Your task to perform on an android device: Open calendar and show me the second week of next month Image 0: 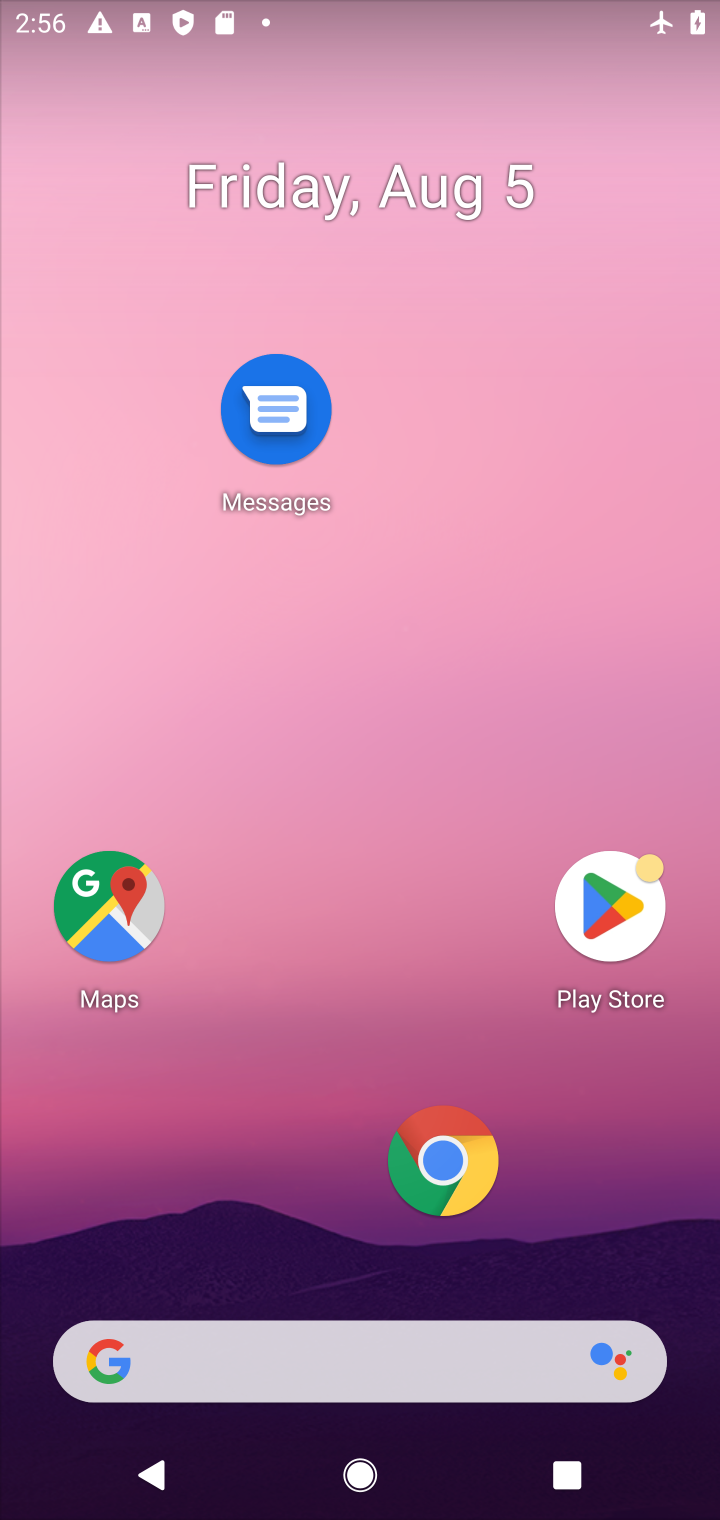
Step 0: press home button
Your task to perform on an android device: Open calendar and show me the second week of next month Image 1: 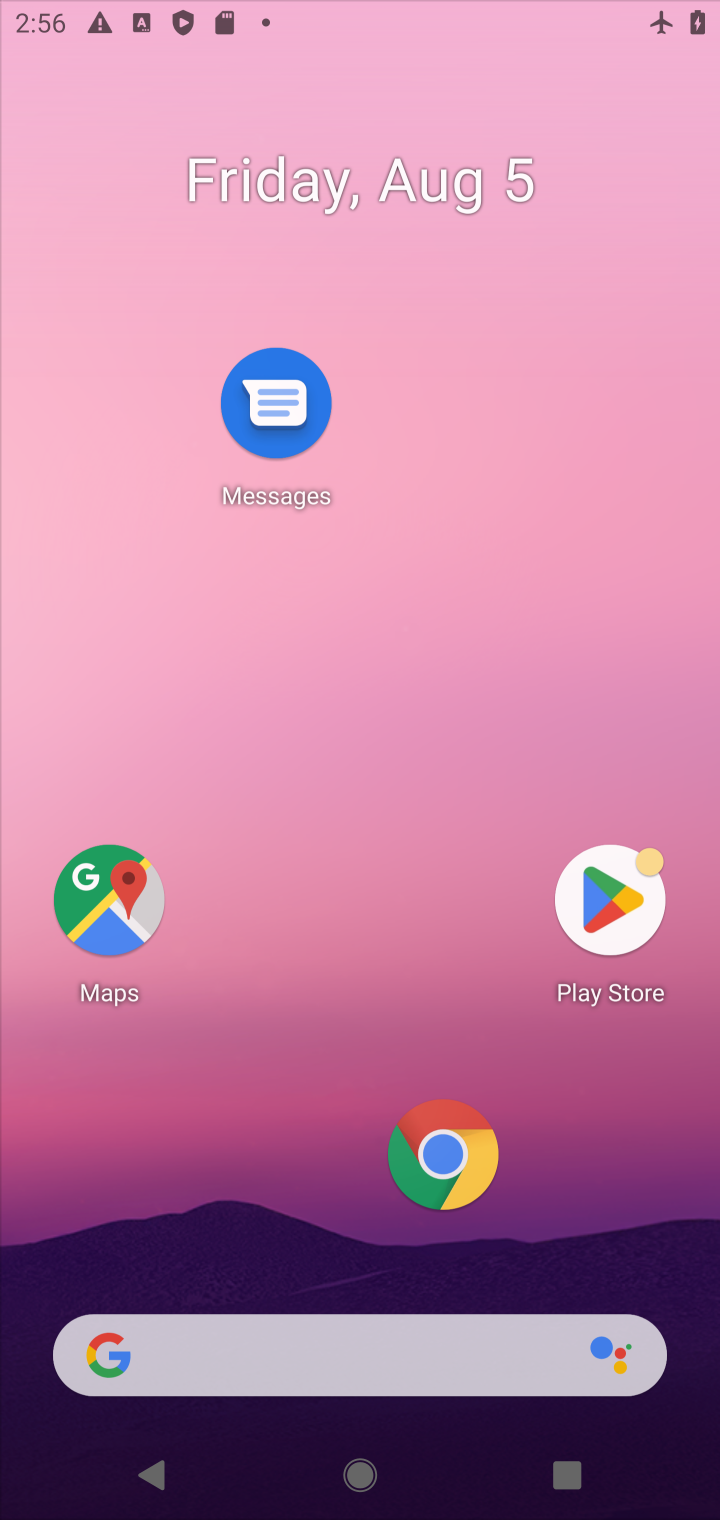
Step 1: drag from (272, 1217) to (378, 420)
Your task to perform on an android device: Open calendar and show me the second week of next month Image 2: 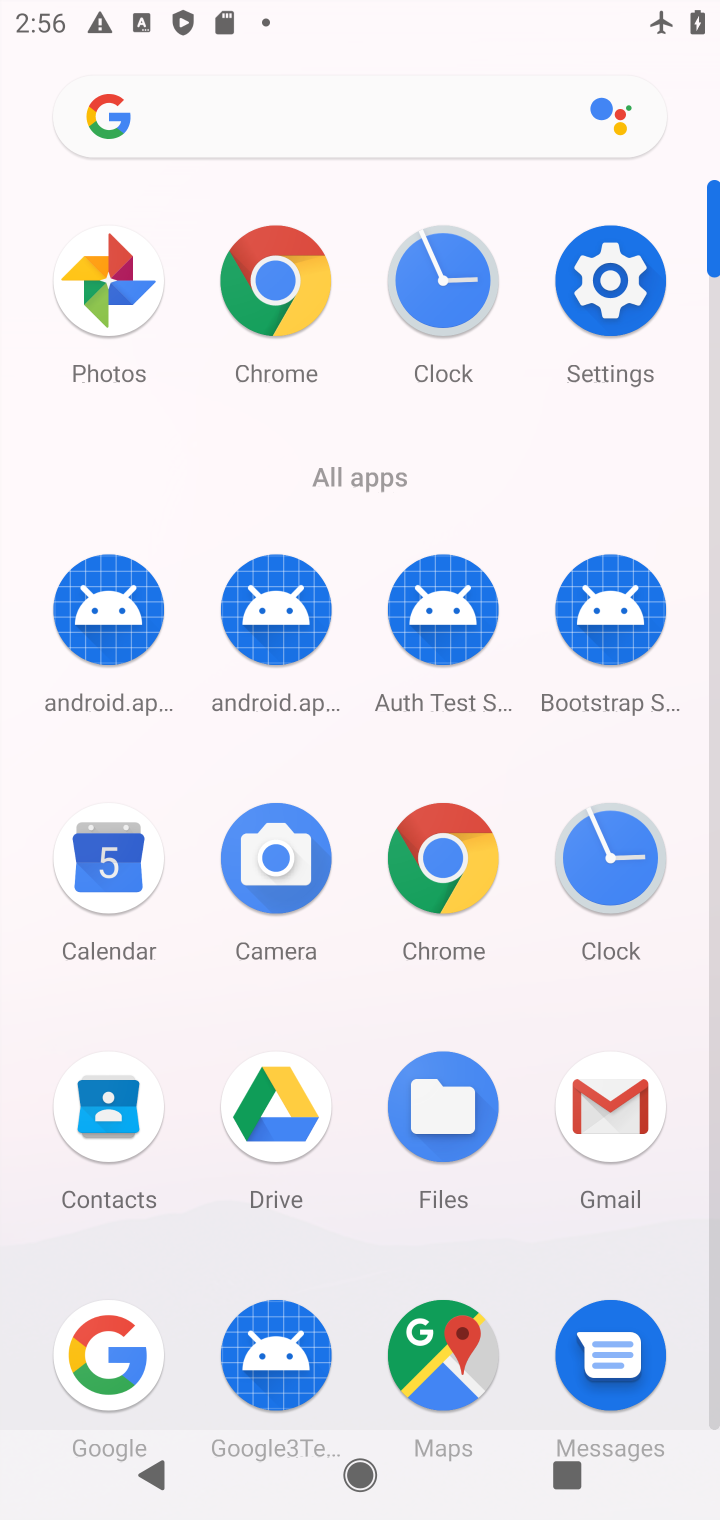
Step 2: click (136, 891)
Your task to perform on an android device: Open calendar and show me the second week of next month Image 3: 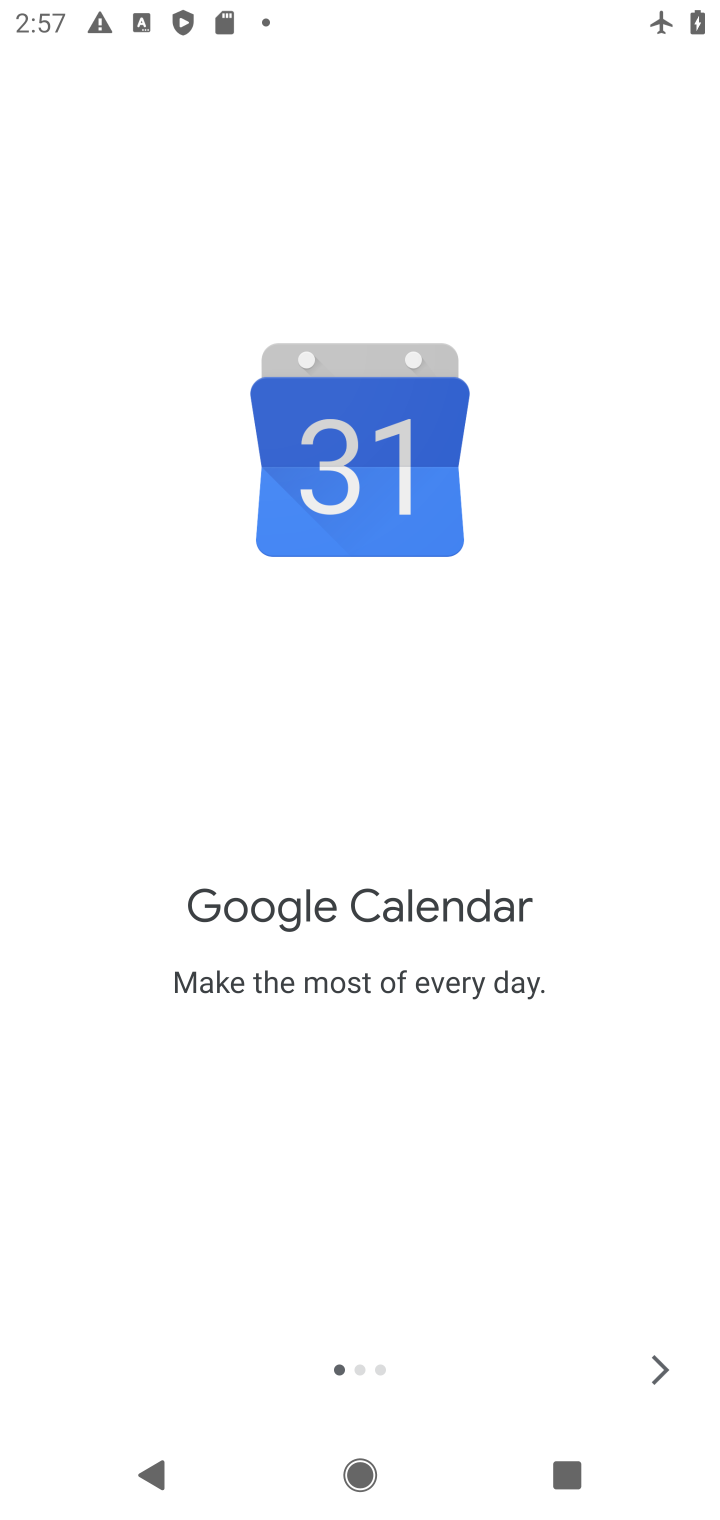
Step 3: click (652, 1370)
Your task to perform on an android device: Open calendar and show me the second week of next month Image 4: 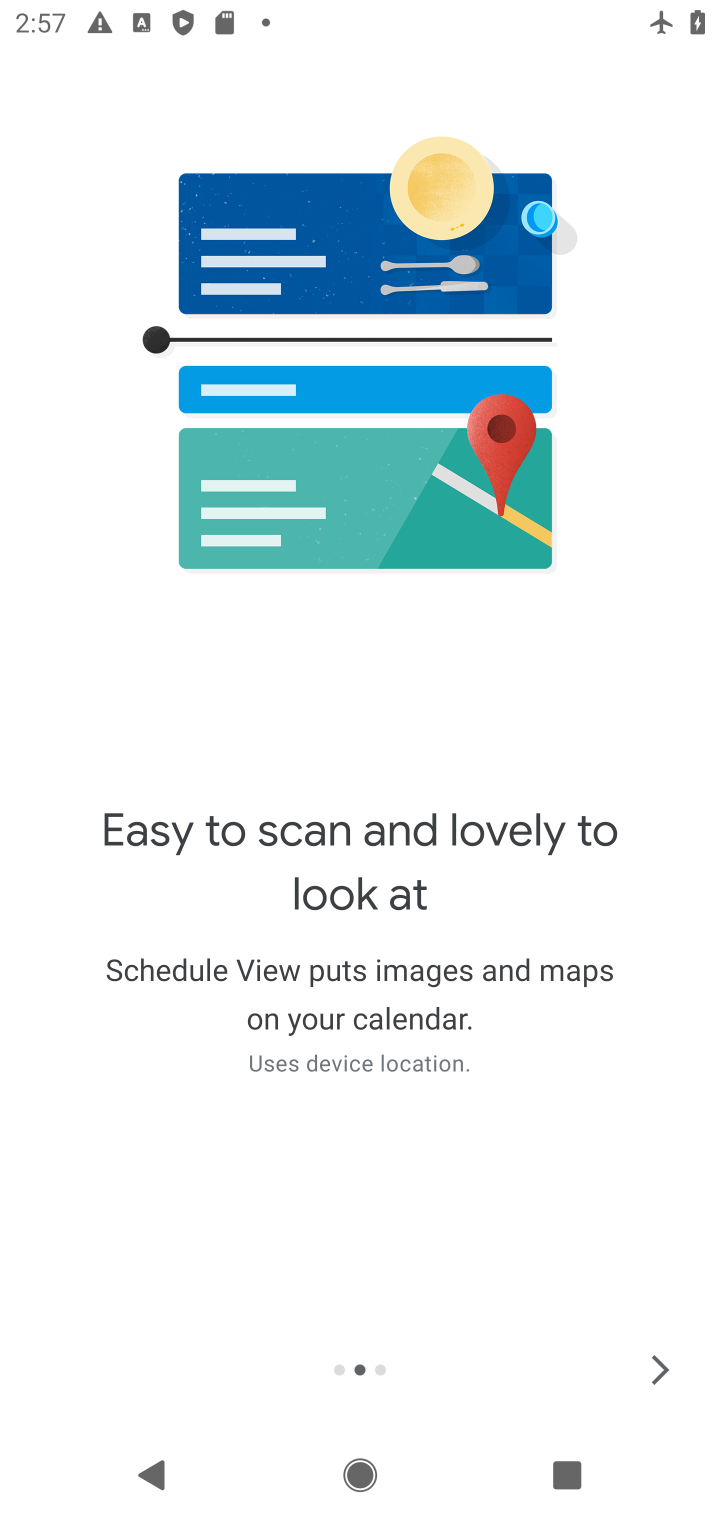
Step 4: click (652, 1370)
Your task to perform on an android device: Open calendar and show me the second week of next month Image 5: 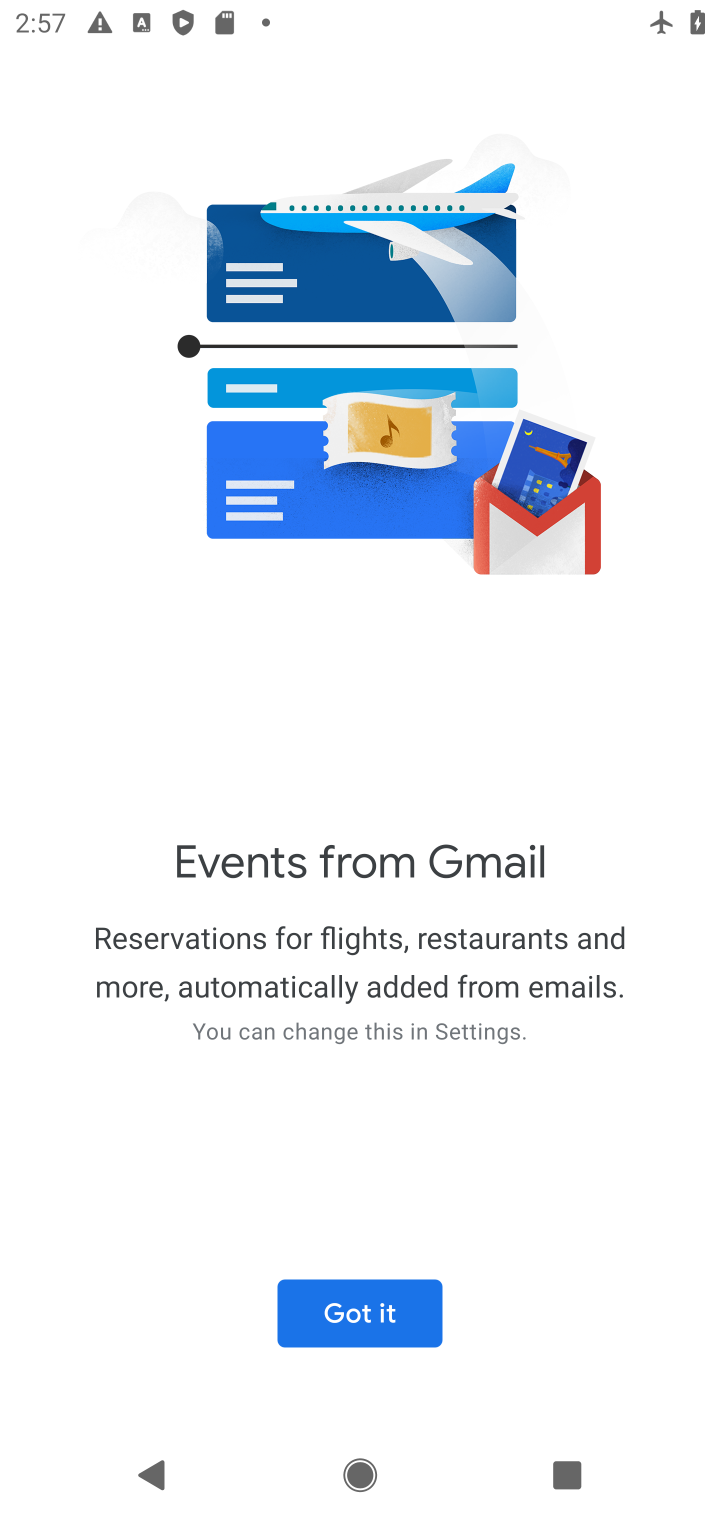
Step 5: click (652, 1370)
Your task to perform on an android device: Open calendar and show me the second week of next month Image 6: 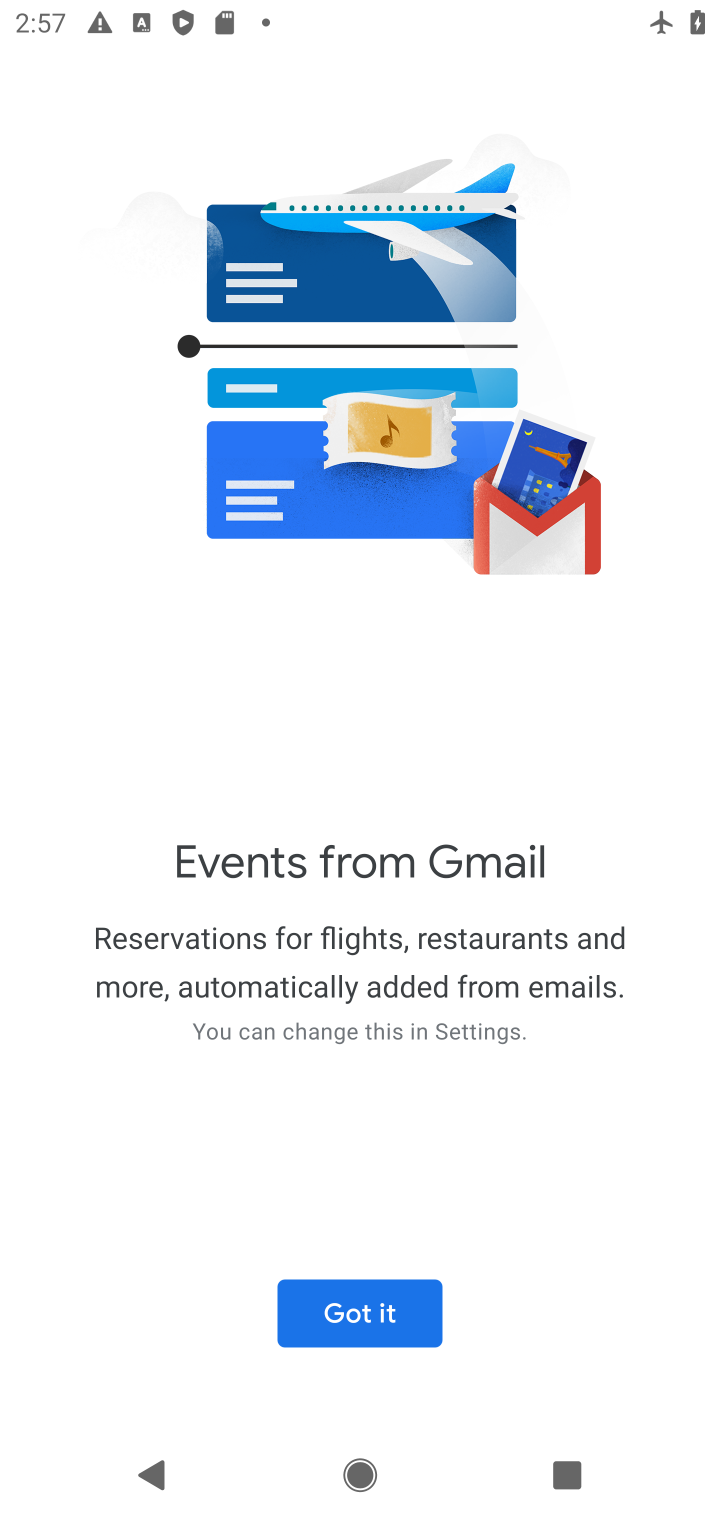
Step 6: click (408, 1327)
Your task to perform on an android device: Open calendar and show me the second week of next month Image 7: 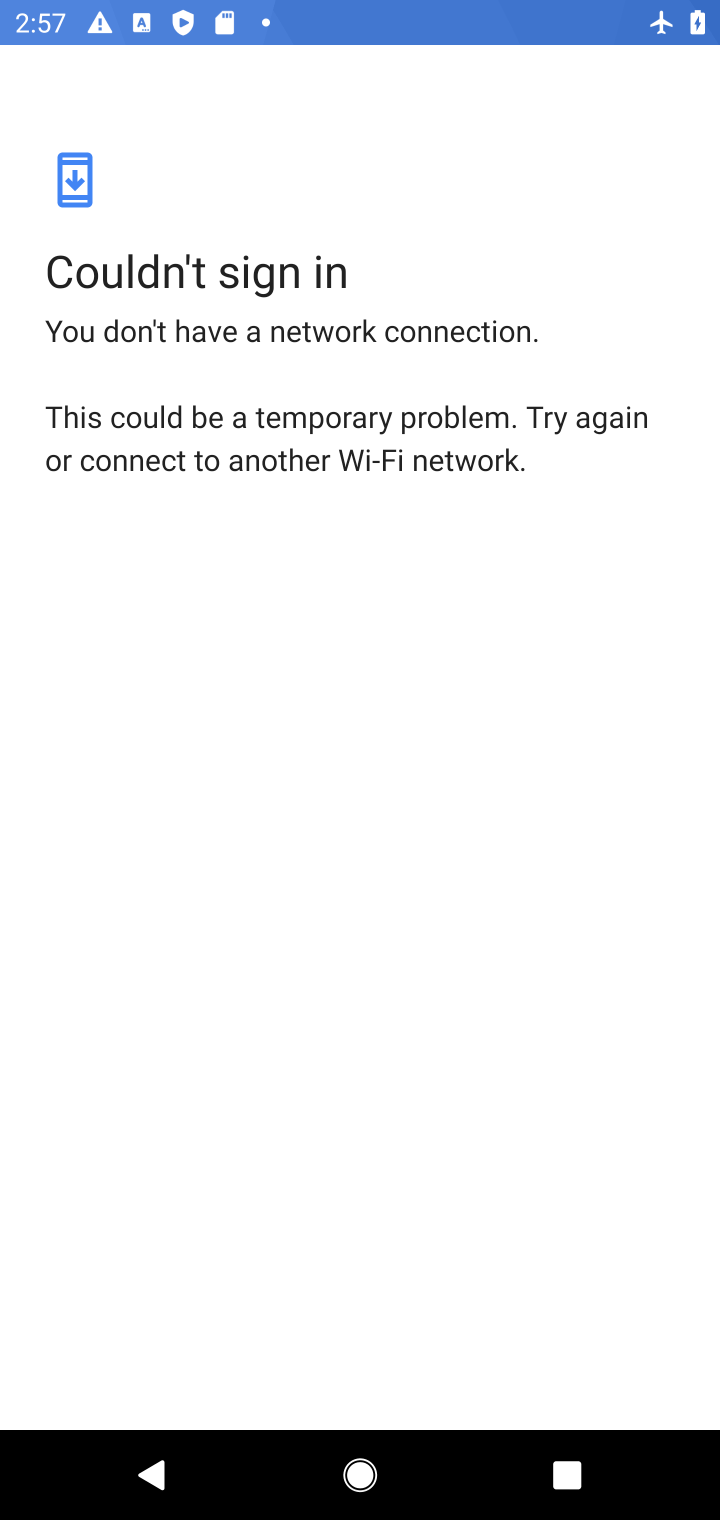
Step 7: press home button
Your task to perform on an android device: Open calendar and show me the second week of next month Image 8: 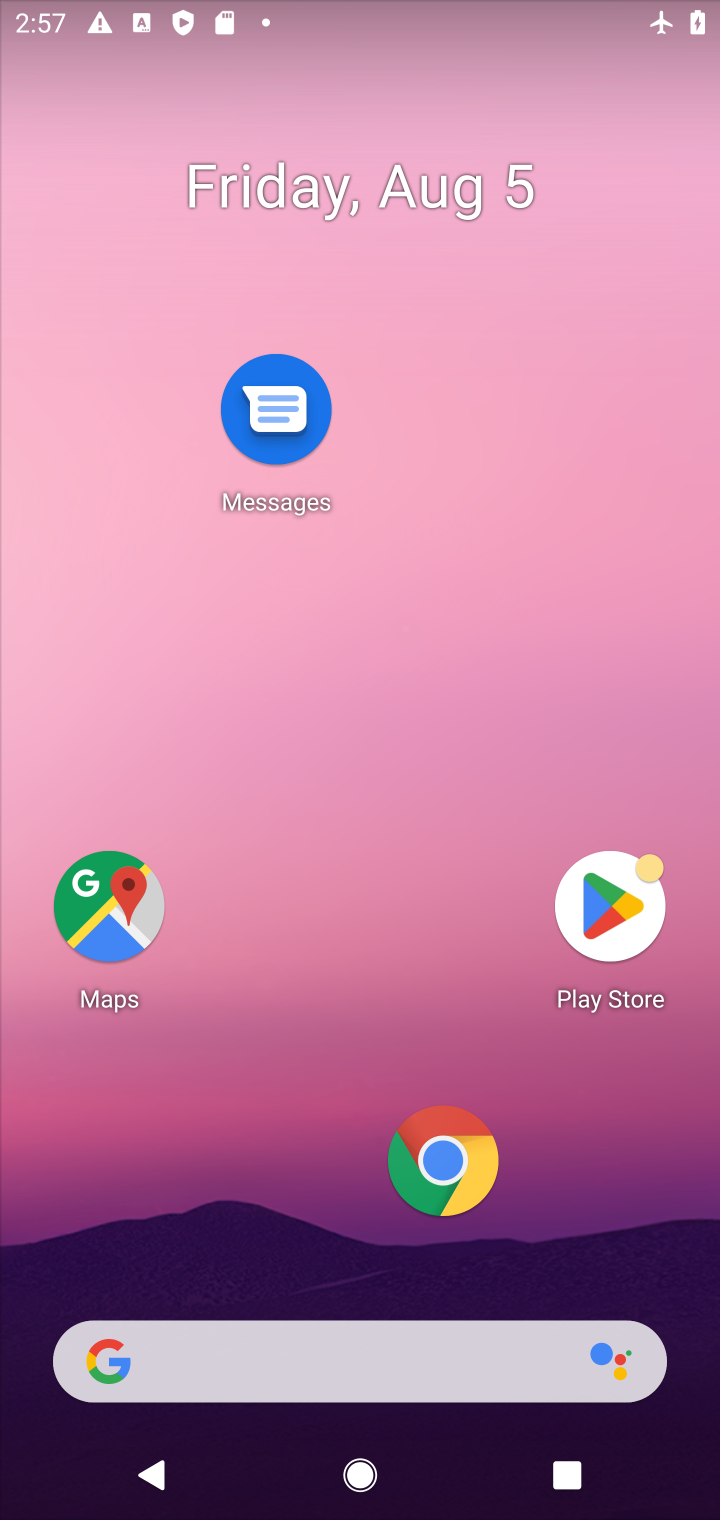
Step 8: drag from (270, 912) to (310, 253)
Your task to perform on an android device: Open calendar and show me the second week of next month Image 9: 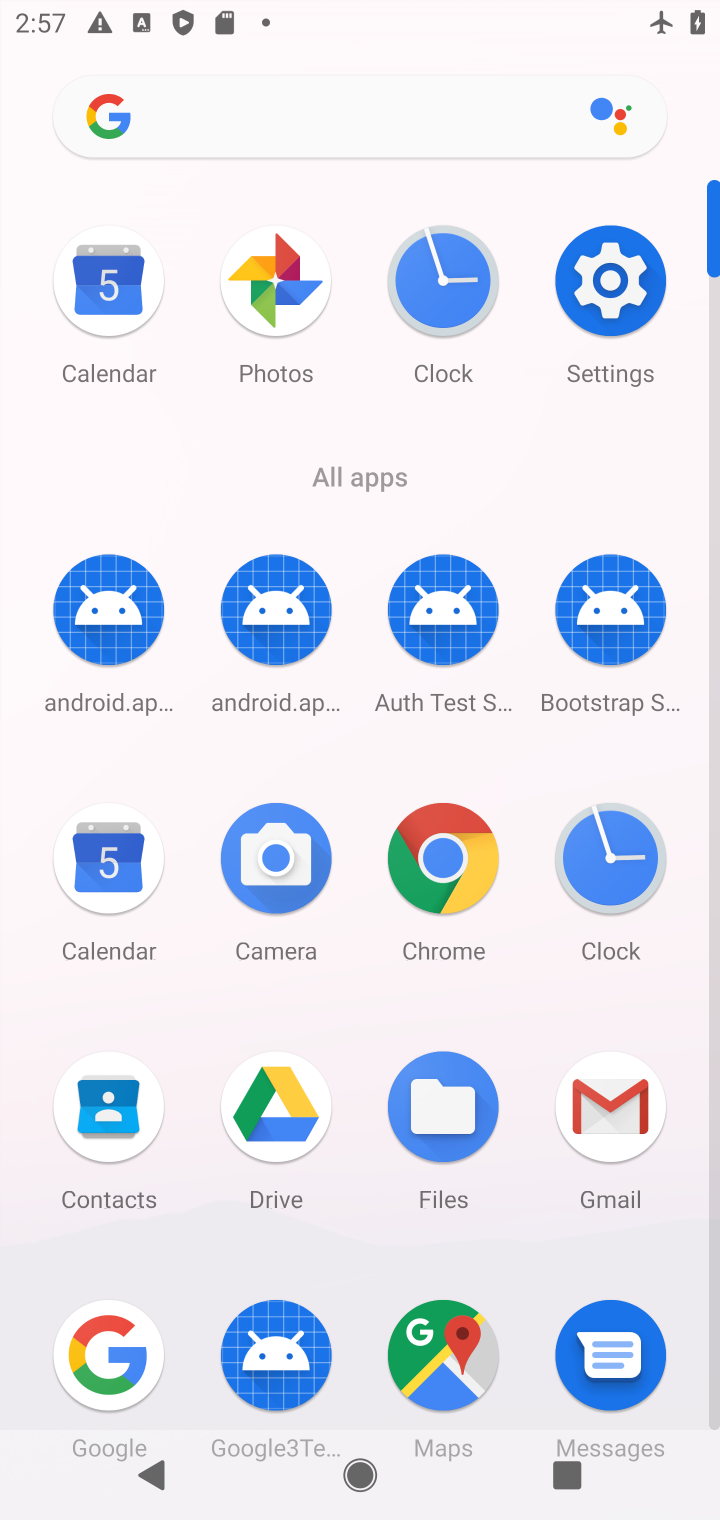
Step 9: click (146, 856)
Your task to perform on an android device: Open calendar and show me the second week of next month Image 10: 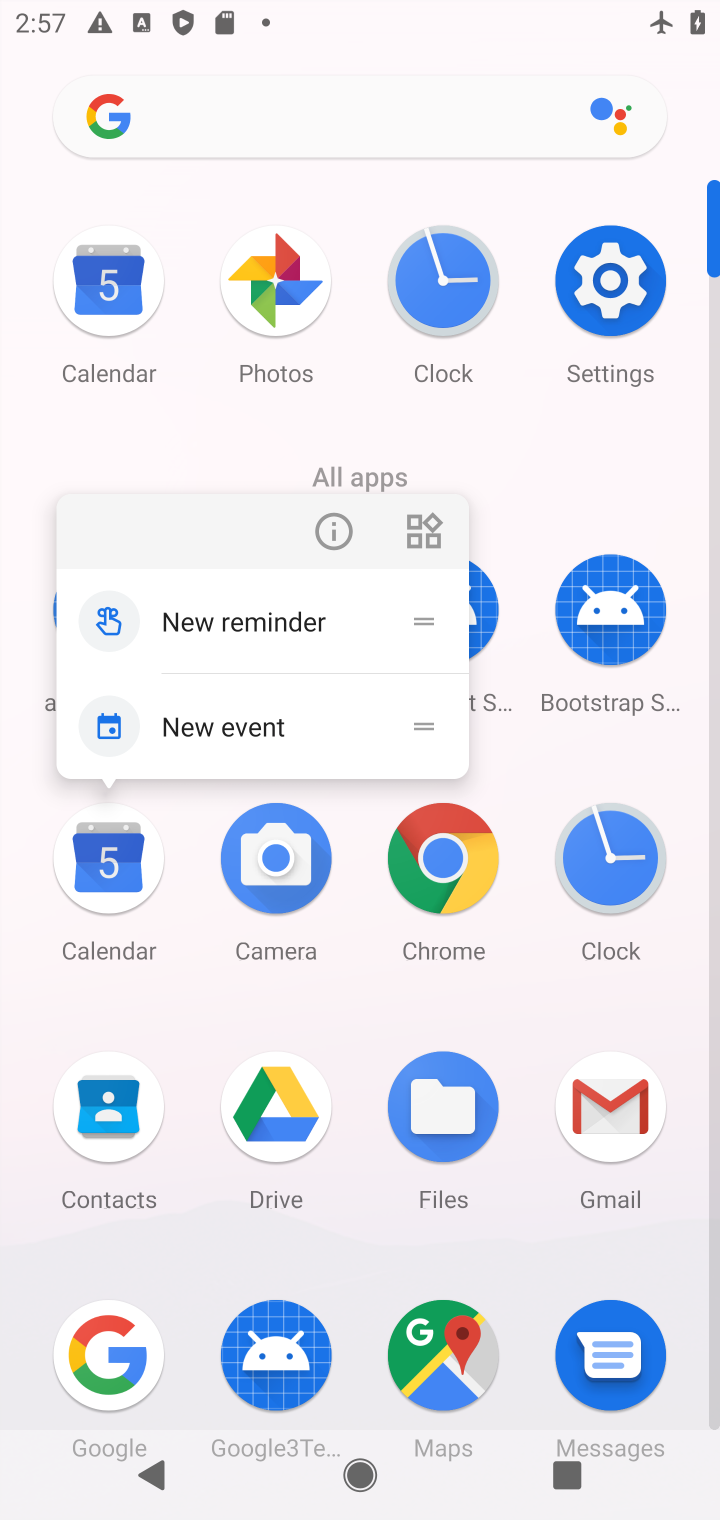
Step 10: click (118, 900)
Your task to perform on an android device: Open calendar and show me the second week of next month Image 11: 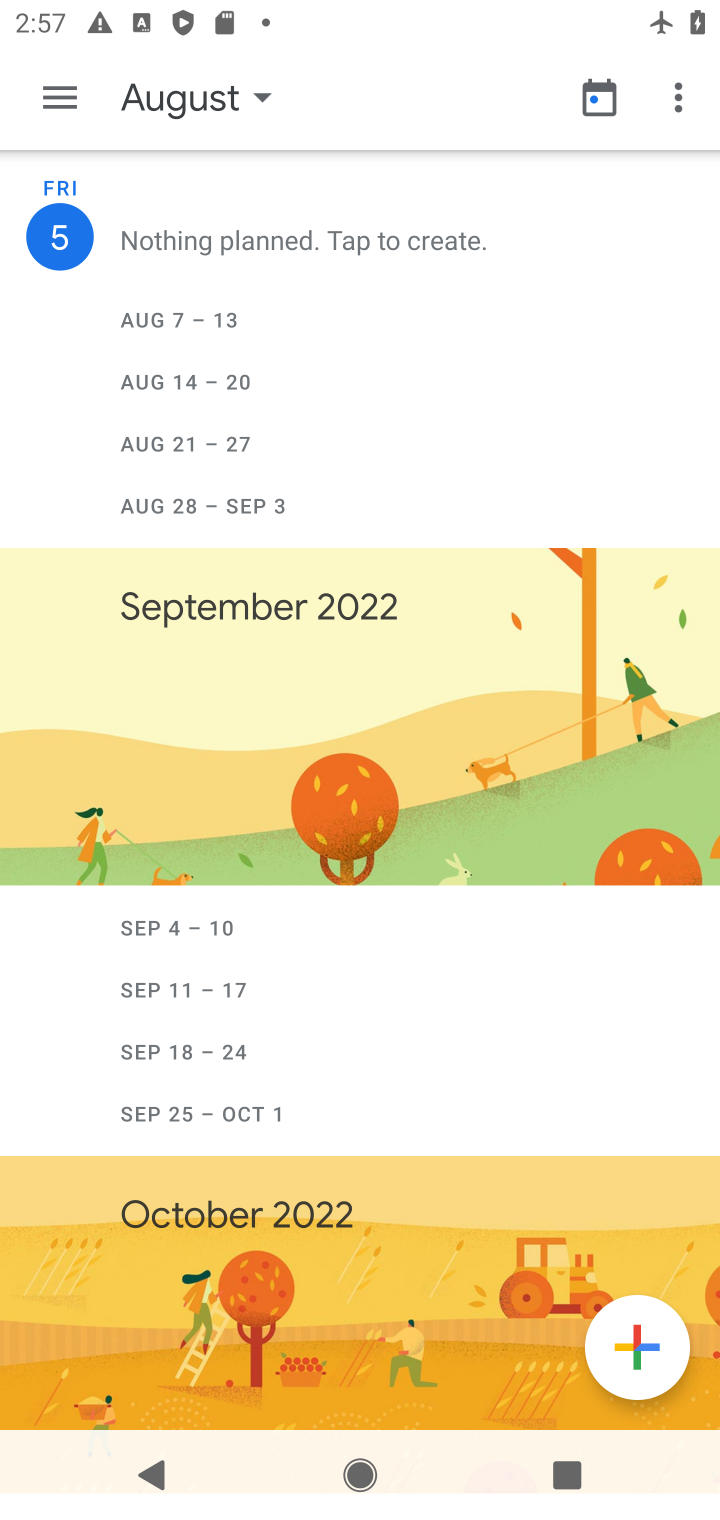
Step 11: click (228, 93)
Your task to perform on an android device: Open calendar and show me the second week of next month Image 12: 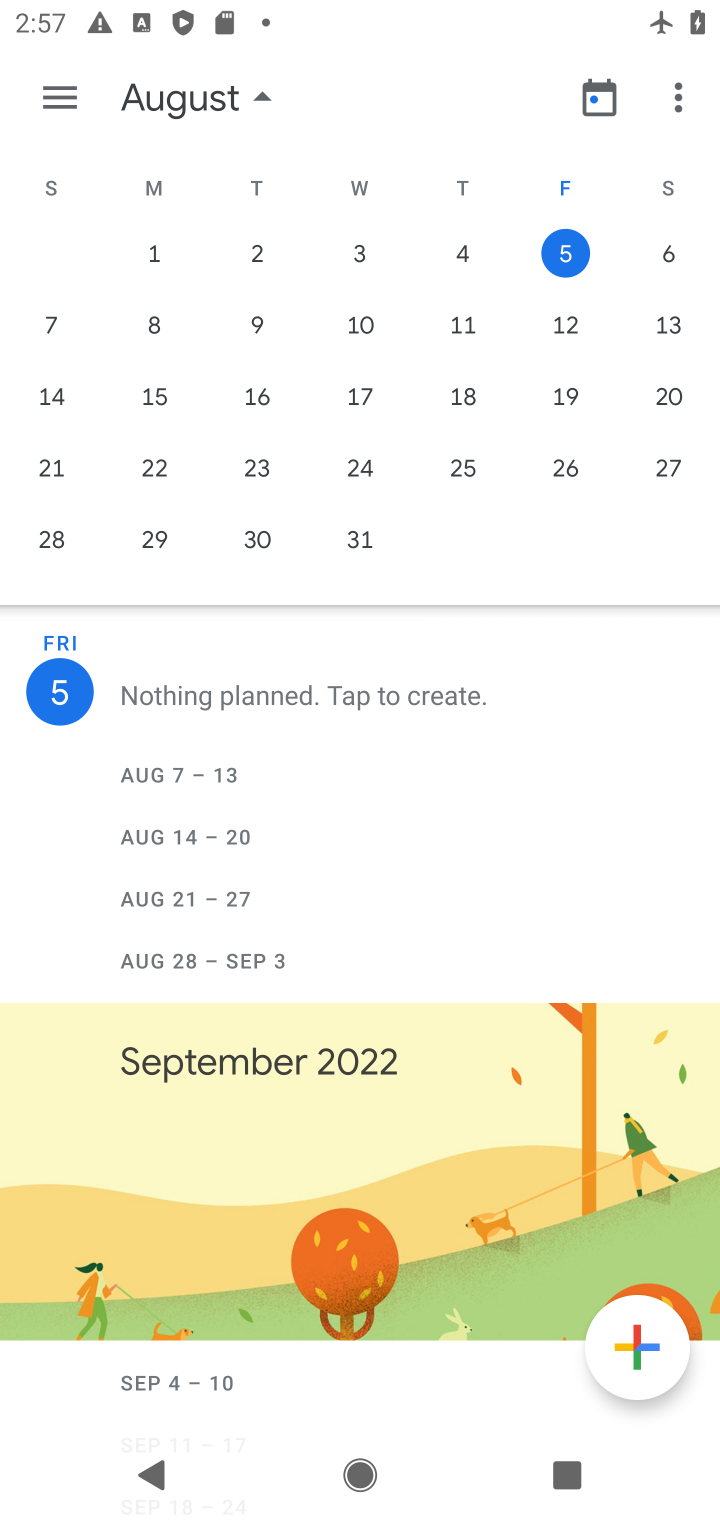
Step 12: drag from (595, 316) to (2, 256)
Your task to perform on an android device: Open calendar and show me the second week of next month Image 13: 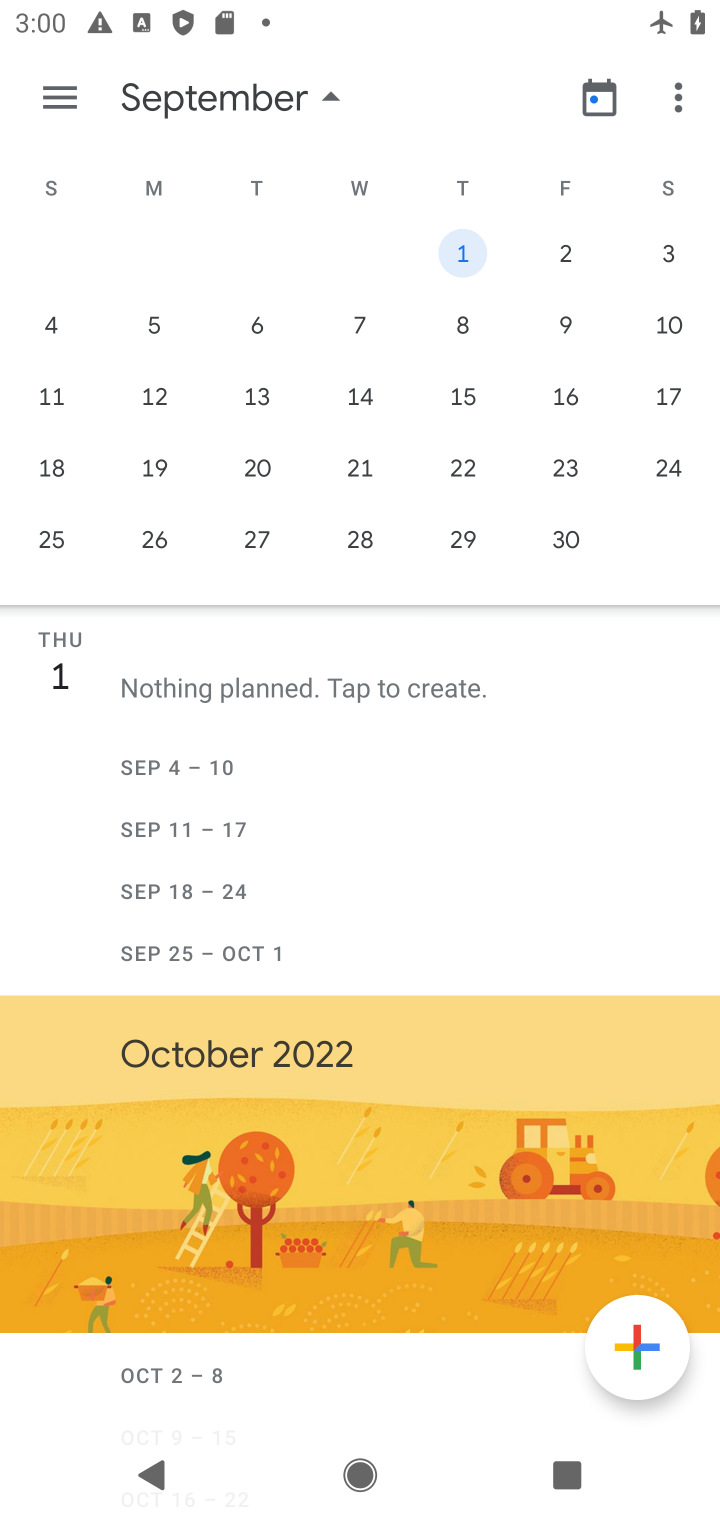
Step 13: click (19, 311)
Your task to perform on an android device: Open calendar and show me the second week of next month Image 14: 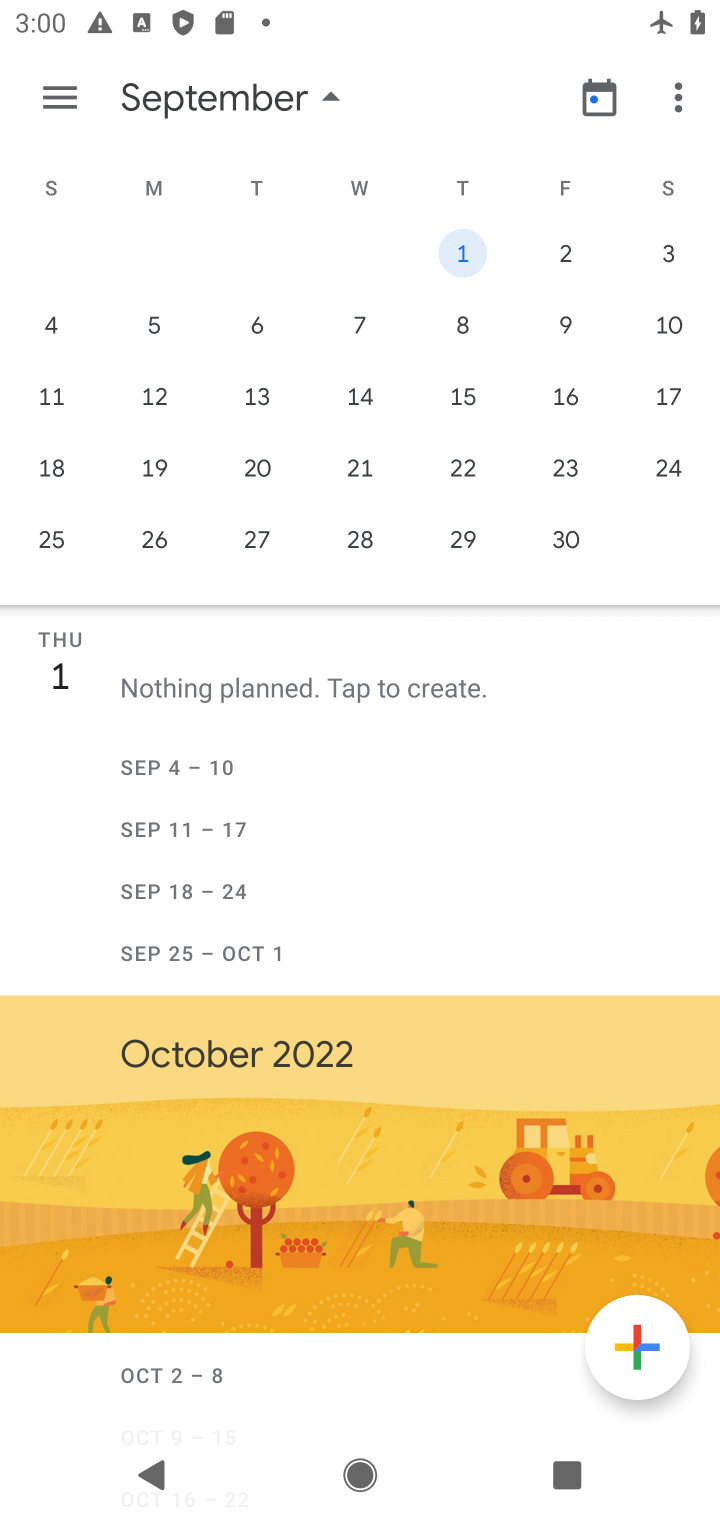
Step 14: click (19, 317)
Your task to perform on an android device: Open calendar and show me the second week of next month Image 15: 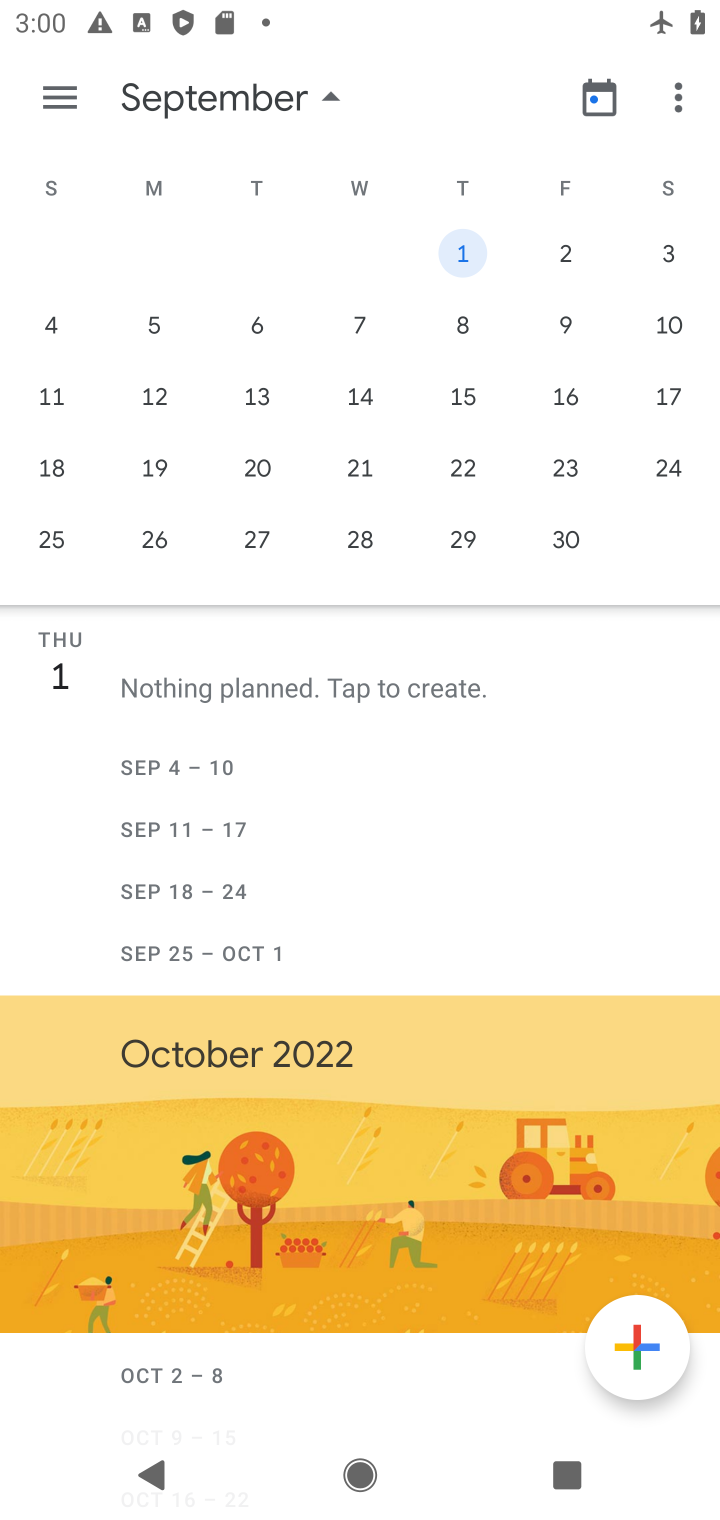
Step 15: click (159, 325)
Your task to perform on an android device: Open calendar and show me the second week of next month Image 16: 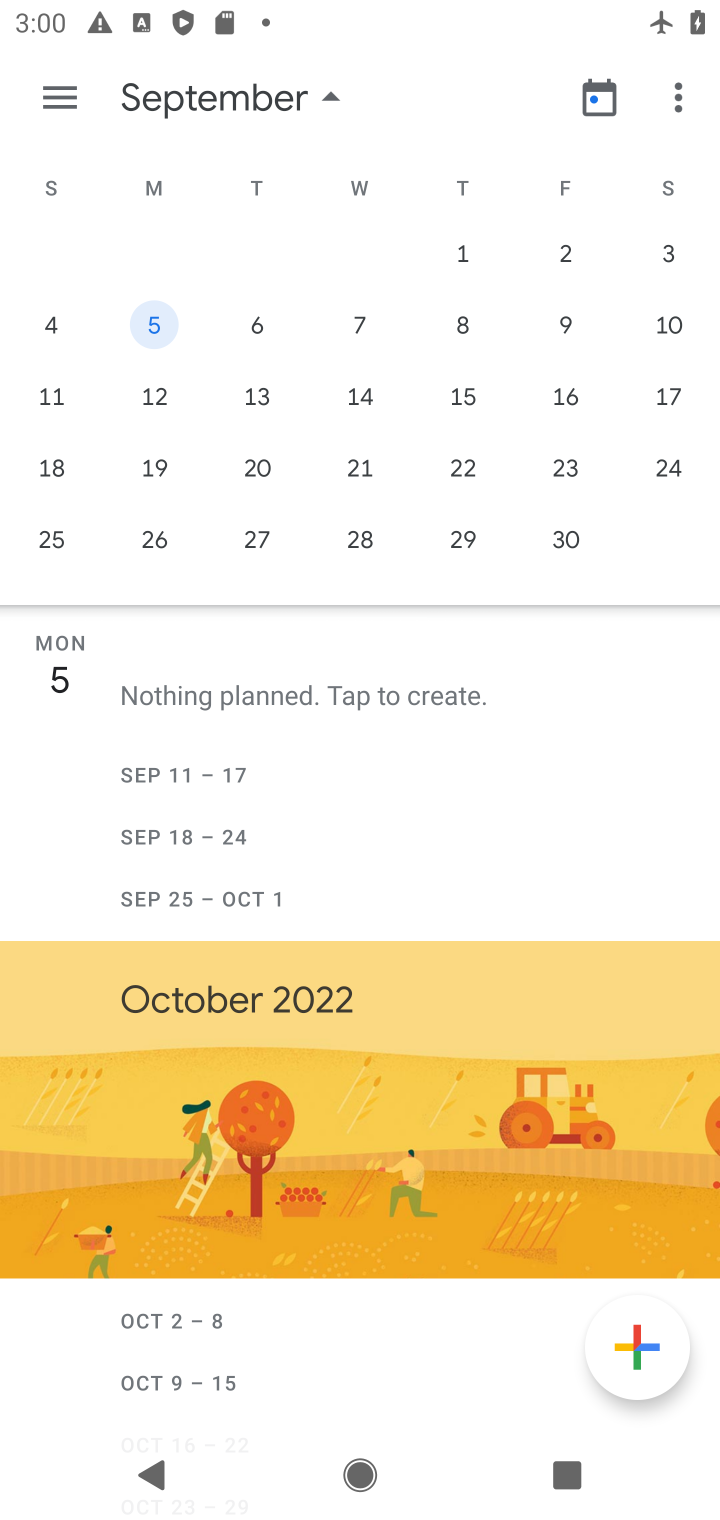
Step 16: task complete